Your task to perform on an android device: turn off picture-in-picture Image 0: 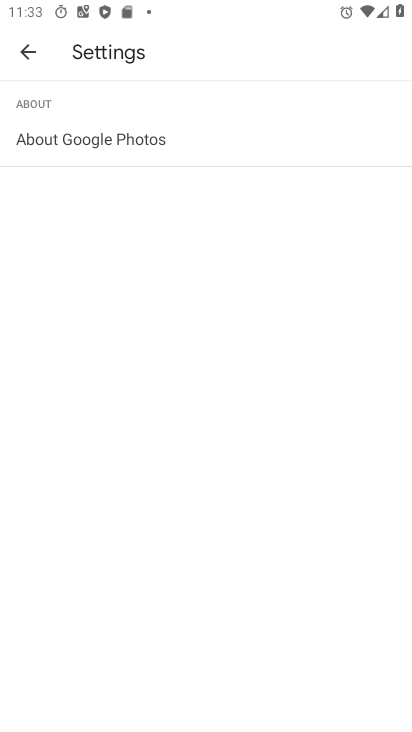
Step 0: press home button
Your task to perform on an android device: turn off picture-in-picture Image 1: 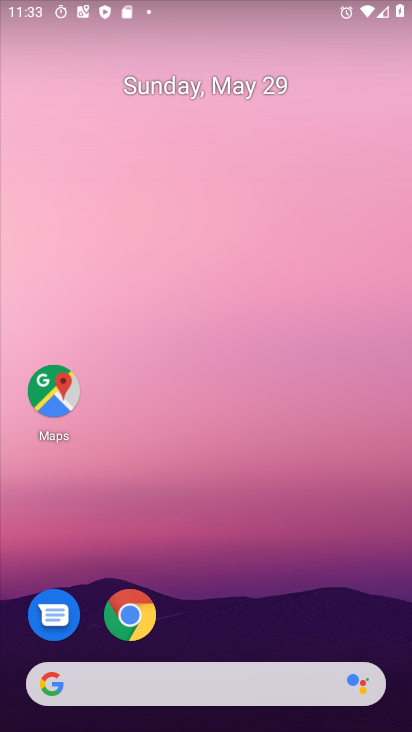
Step 1: click (136, 615)
Your task to perform on an android device: turn off picture-in-picture Image 2: 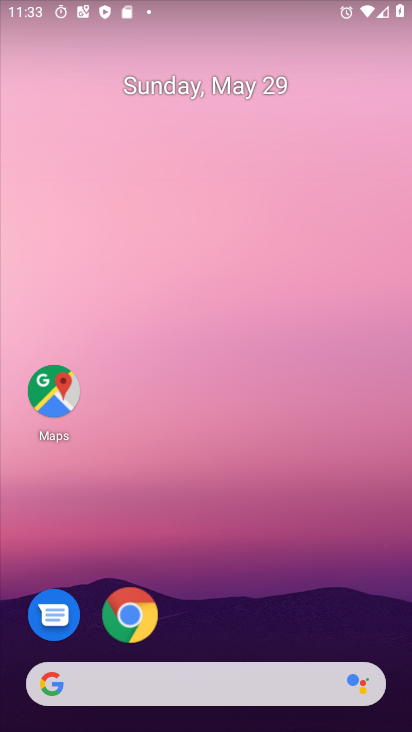
Step 2: click (137, 615)
Your task to perform on an android device: turn off picture-in-picture Image 3: 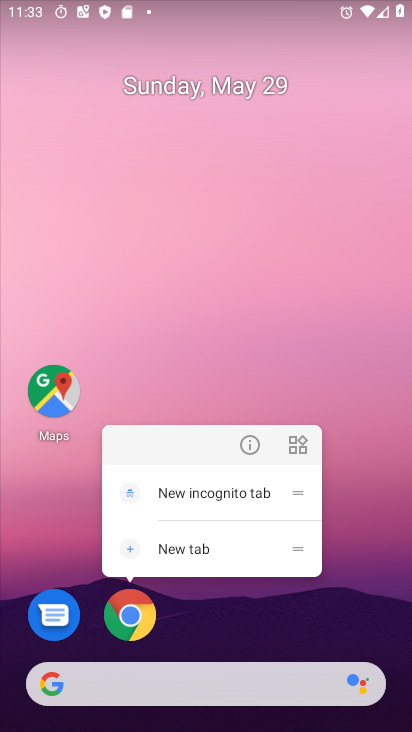
Step 3: click (249, 438)
Your task to perform on an android device: turn off picture-in-picture Image 4: 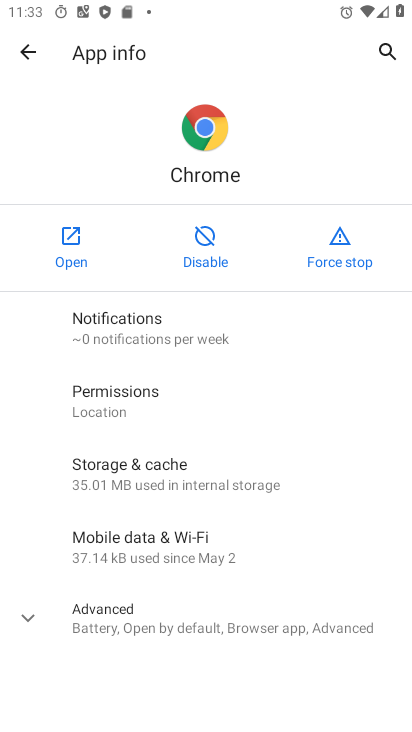
Step 4: drag from (307, 594) to (317, 38)
Your task to perform on an android device: turn off picture-in-picture Image 5: 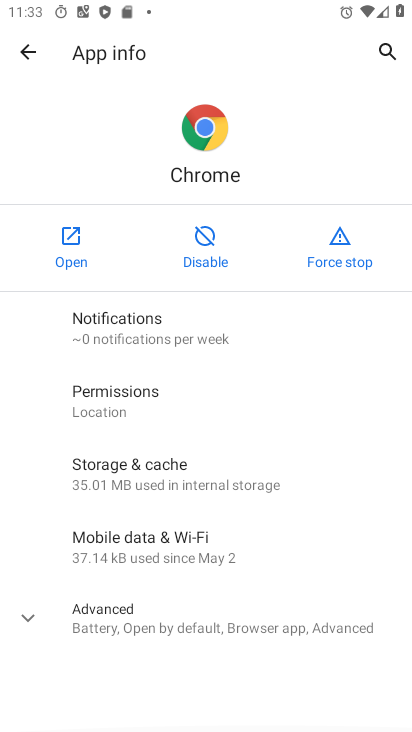
Step 5: click (139, 630)
Your task to perform on an android device: turn off picture-in-picture Image 6: 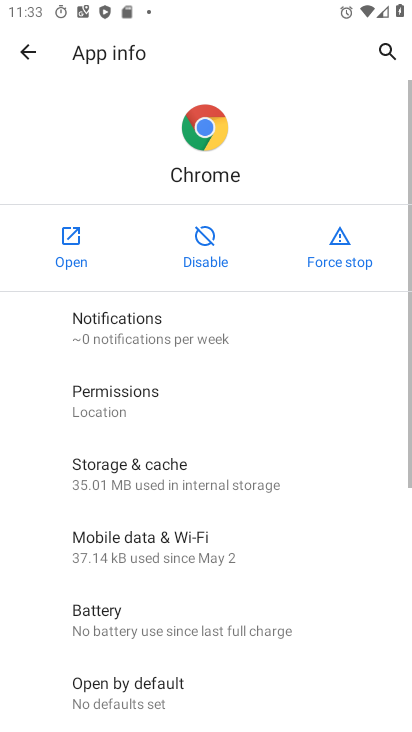
Step 6: drag from (357, 609) to (387, 75)
Your task to perform on an android device: turn off picture-in-picture Image 7: 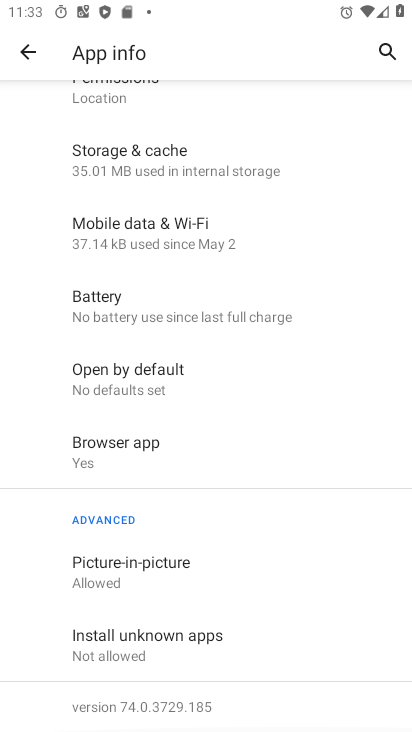
Step 7: click (137, 570)
Your task to perform on an android device: turn off picture-in-picture Image 8: 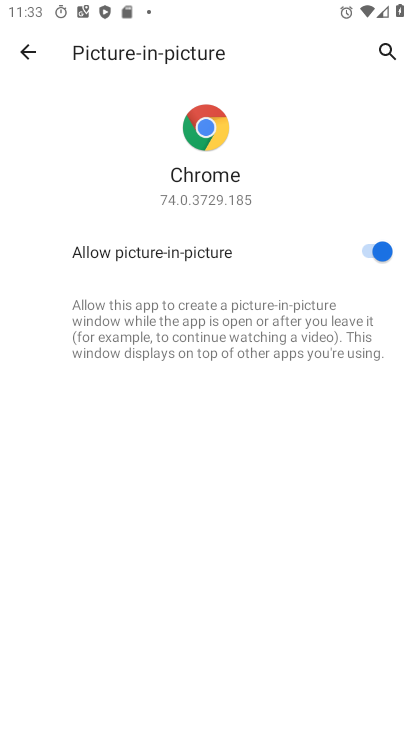
Step 8: click (403, 237)
Your task to perform on an android device: turn off picture-in-picture Image 9: 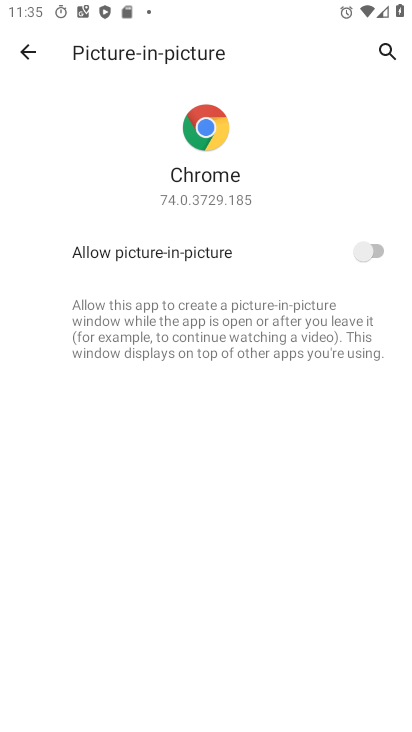
Step 9: task complete